Your task to perform on an android device: Open sound settings Image 0: 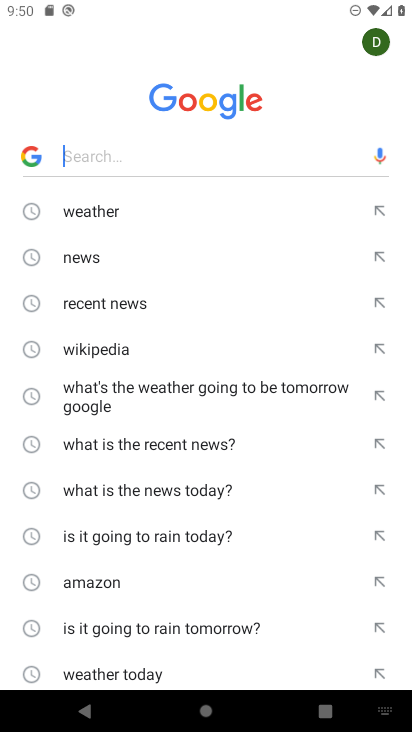
Step 0: press home button
Your task to perform on an android device: Open sound settings Image 1: 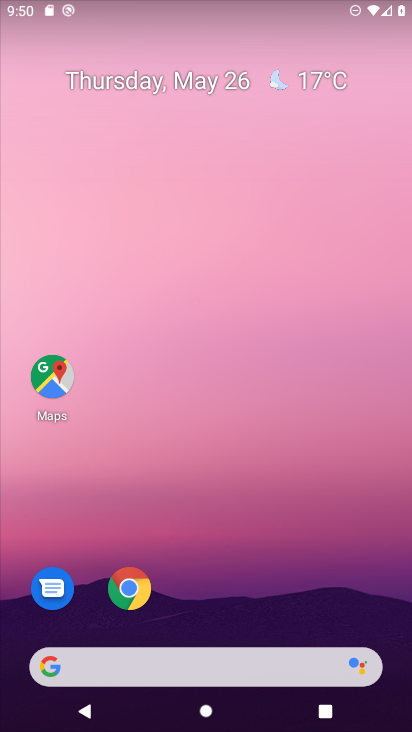
Step 1: drag from (359, 615) to (272, 83)
Your task to perform on an android device: Open sound settings Image 2: 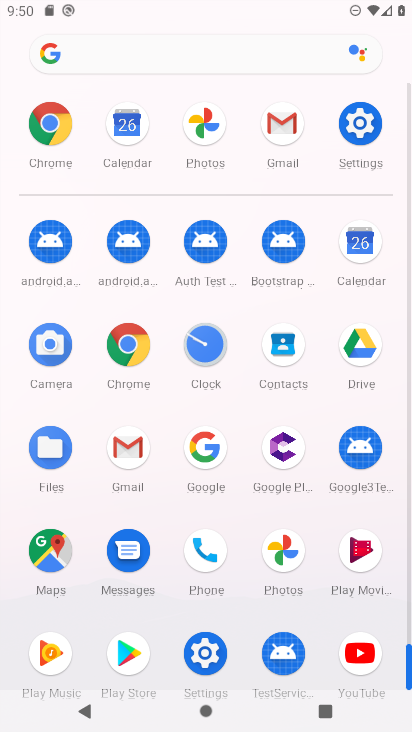
Step 2: click (204, 651)
Your task to perform on an android device: Open sound settings Image 3: 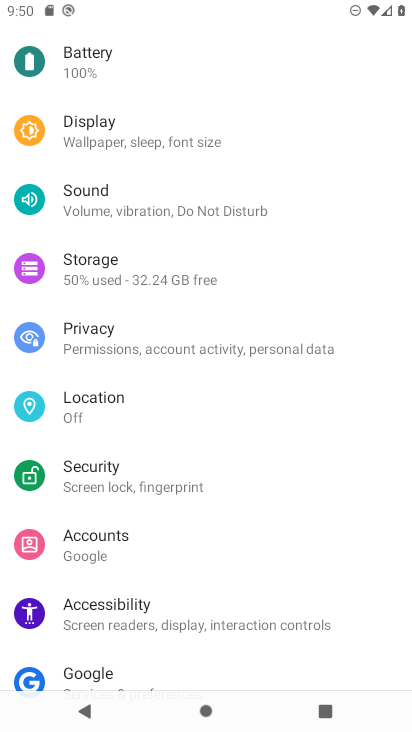
Step 3: click (118, 194)
Your task to perform on an android device: Open sound settings Image 4: 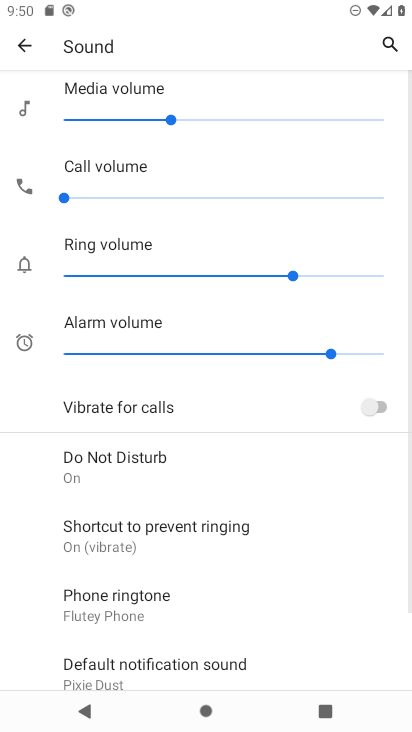
Step 4: drag from (285, 645) to (233, 156)
Your task to perform on an android device: Open sound settings Image 5: 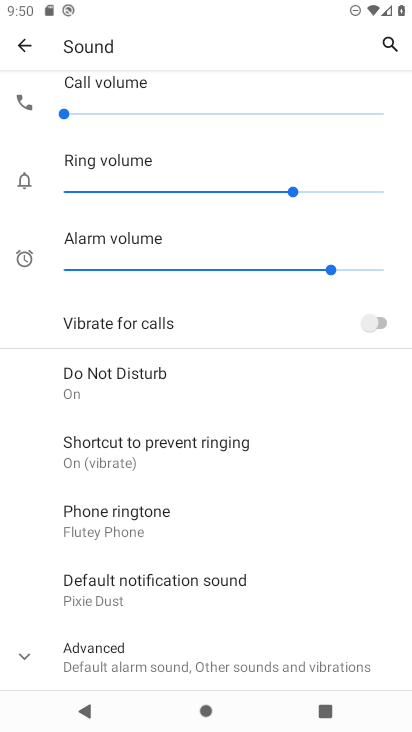
Step 5: click (15, 657)
Your task to perform on an android device: Open sound settings Image 6: 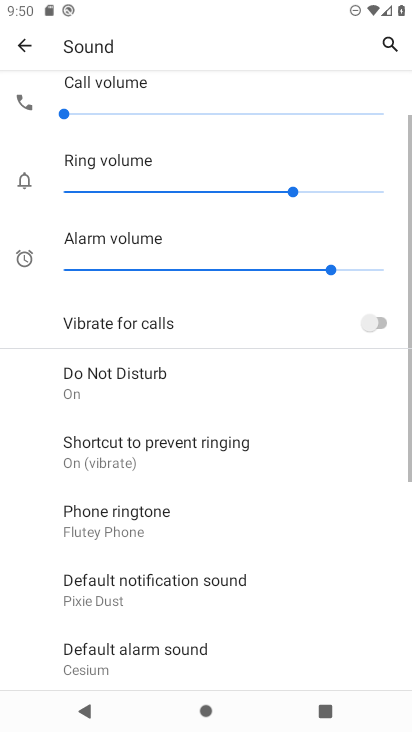
Step 6: task complete